Your task to perform on an android device: toggle improve location accuracy Image 0: 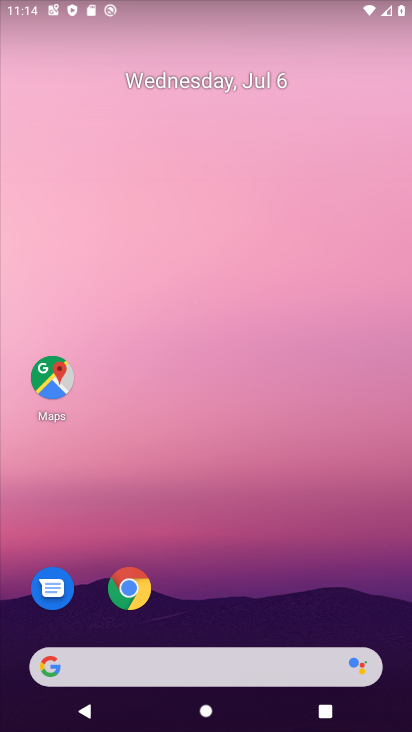
Step 0: drag from (255, 610) to (261, 386)
Your task to perform on an android device: toggle improve location accuracy Image 1: 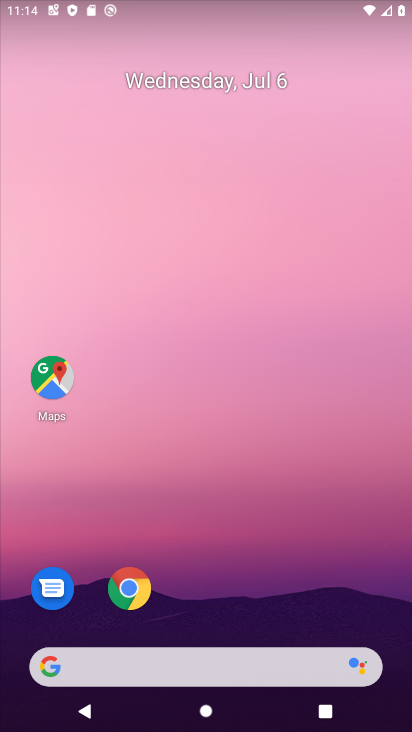
Step 1: drag from (221, 596) to (249, 162)
Your task to perform on an android device: toggle improve location accuracy Image 2: 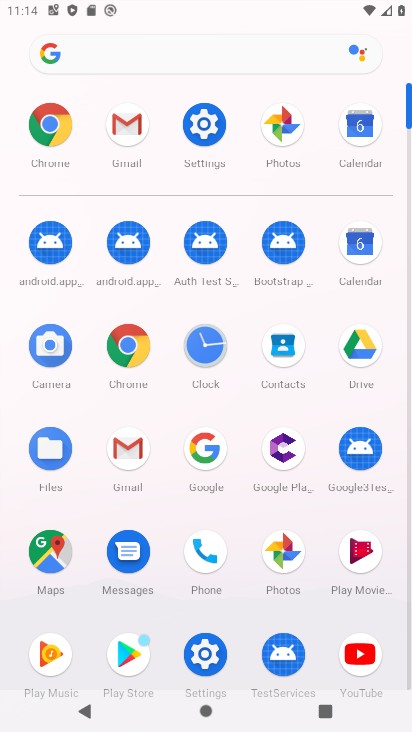
Step 2: click (209, 109)
Your task to perform on an android device: toggle improve location accuracy Image 3: 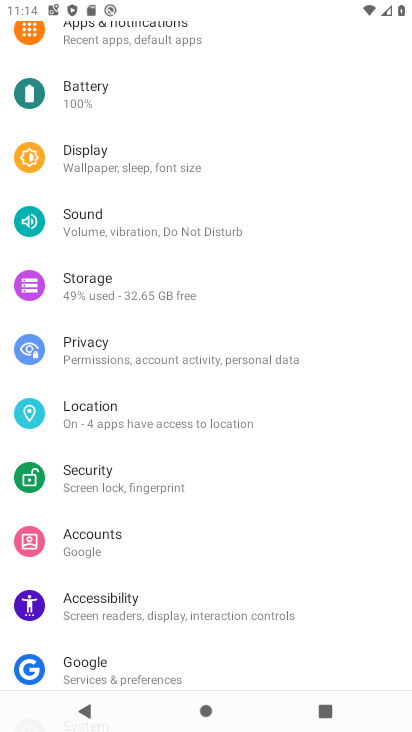
Step 3: click (136, 399)
Your task to perform on an android device: toggle improve location accuracy Image 4: 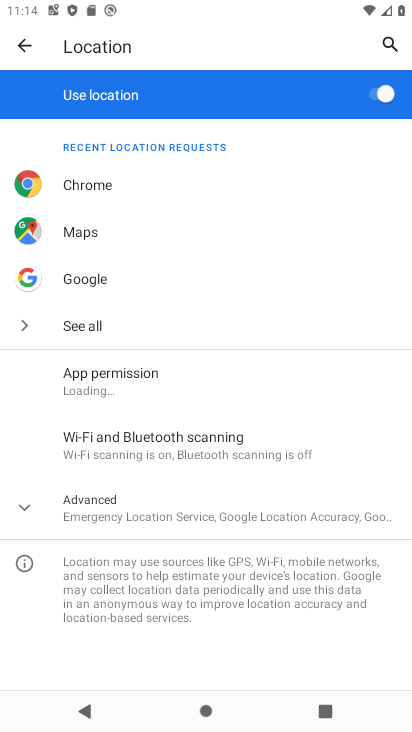
Step 4: click (155, 497)
Your task to perform on an android device: toggle improve location accuracy Image 5: 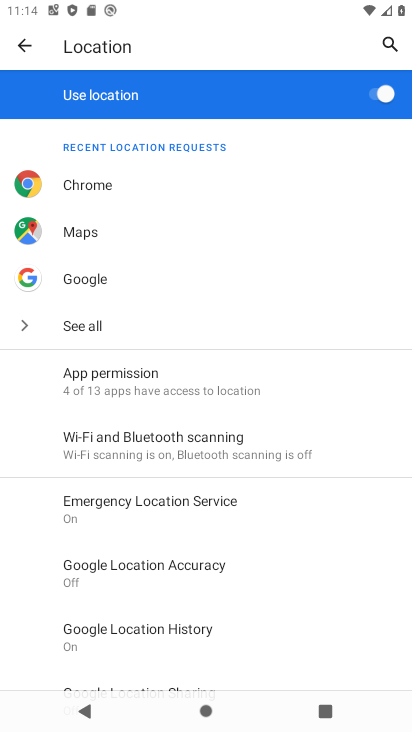
Step 5: click (201, 570)
Your task to perform on an android device: toggle improve location accuracy Image 6: 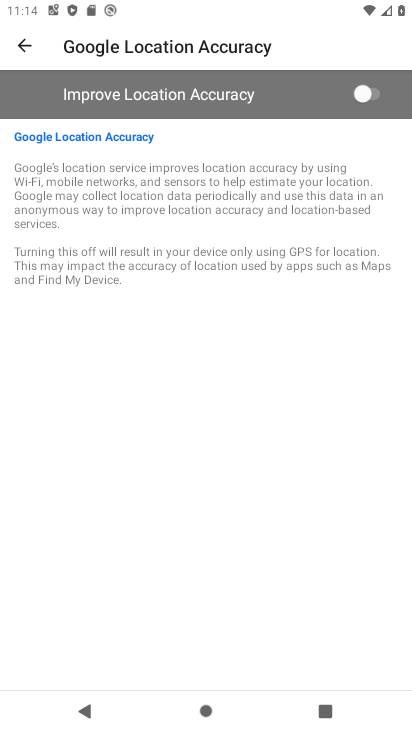
Step 6: click (366, 84)
Your task to perform on an android device: toggle improve location accuracy Image 7: 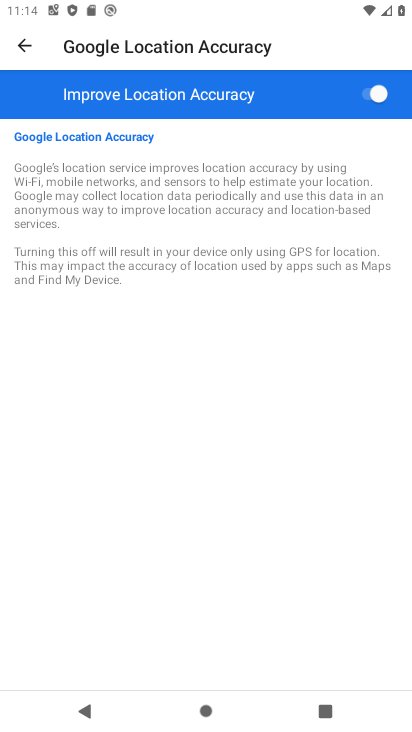
Step 7: task complete